Your task to perform on an android device: turn notification dots on Image 0: 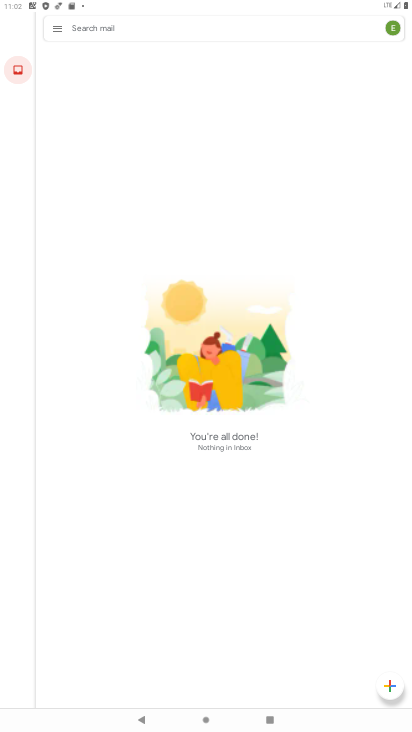
Step 0: press home button
Your task to perform on an android device: turn notification dots on Image 1: 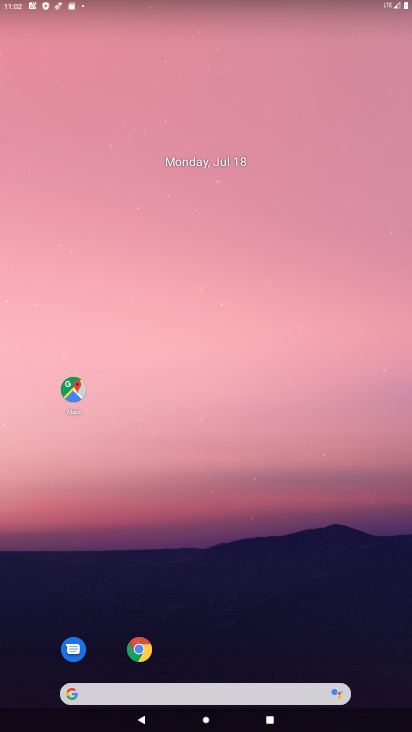
Step 1: drag from (182, 713) to (379, 68)
Your task to perform on an android device: turn notification dots on Image 2: 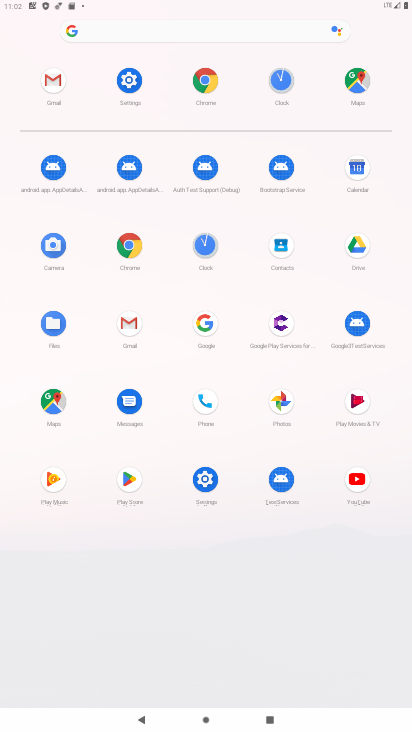
Step 2: click (116, 73)
Your task to perform on an android device: turn notification dots on Image 3: 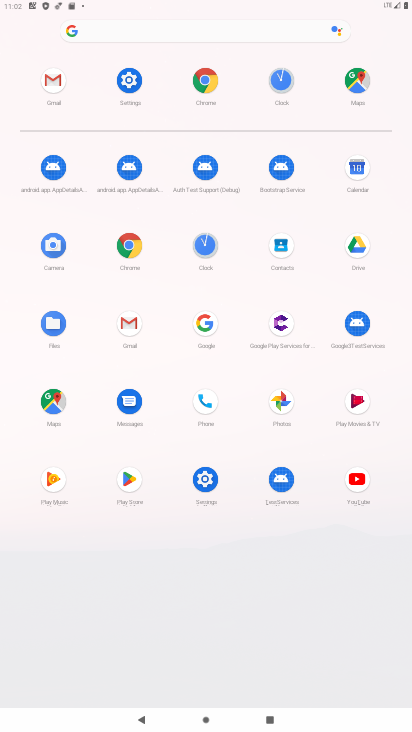
Step 3: click (116, 73)
Your task to perform on an android device: turn notification dots on Image 4: 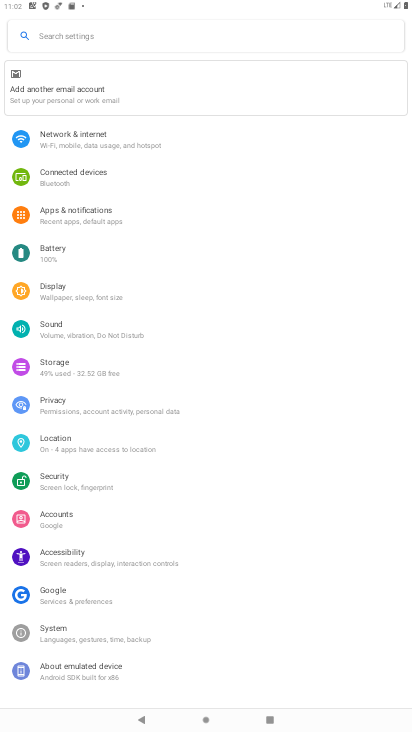
Step 4: click (114, 216)
Your task to perform on an android device: turn notification dots on Image 5: 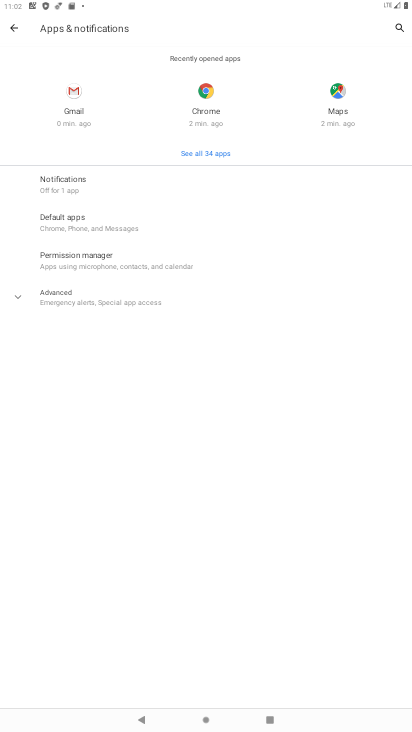
Step 5: click (146, 298)
Your task to perform on an android device: turn notification dots on Image 6: 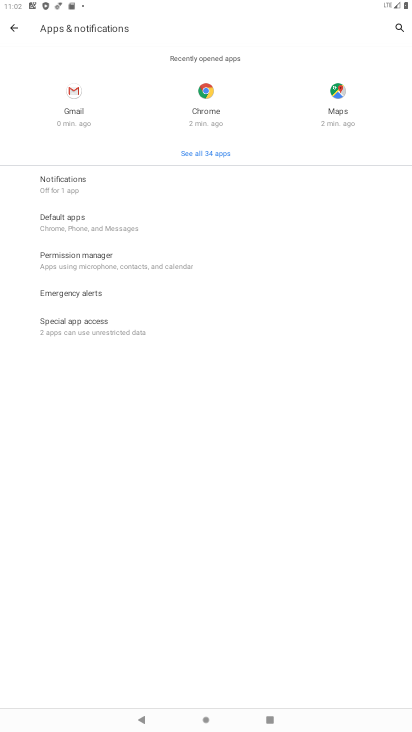
Step 6: click (152, 188)
Your task to perform on an android device: turn notification dots on Image 7: 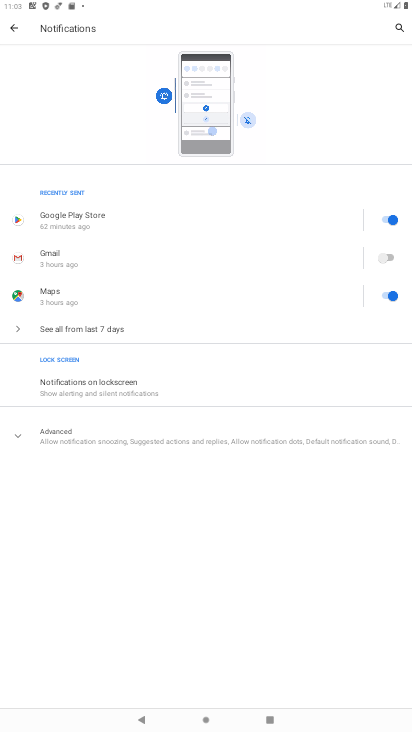
Step 7: click (108, 440)
Your task to perform on an android device: turn notification dots on Image 8: 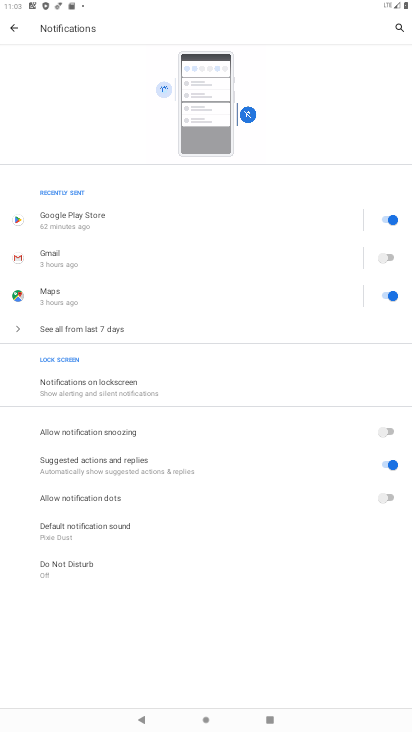
Step 8: click (388, 492)
Your task to perform on an android device: turn notification dots on Image 9: 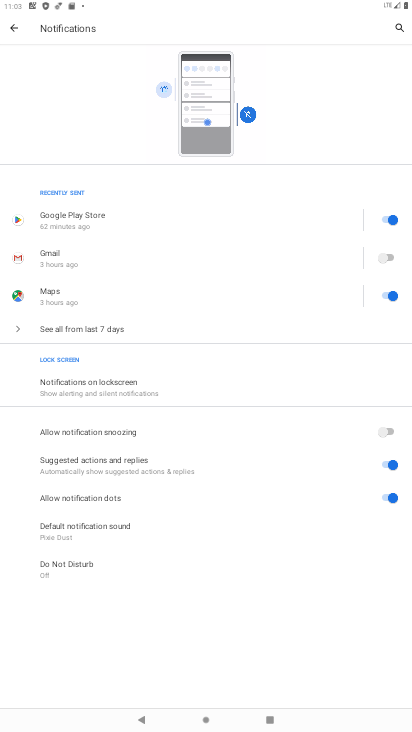
Step 9: task complete